Your task to perform on an android device: check the backup settings in the google photos Image 0: 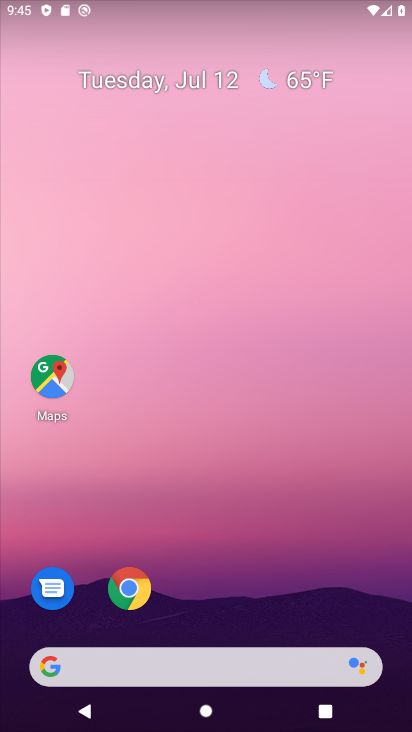
Step 0: drag from (36, 715) to (314, 4)
Your task to perform on an android device: check the backup settings in the google photos Image 1: 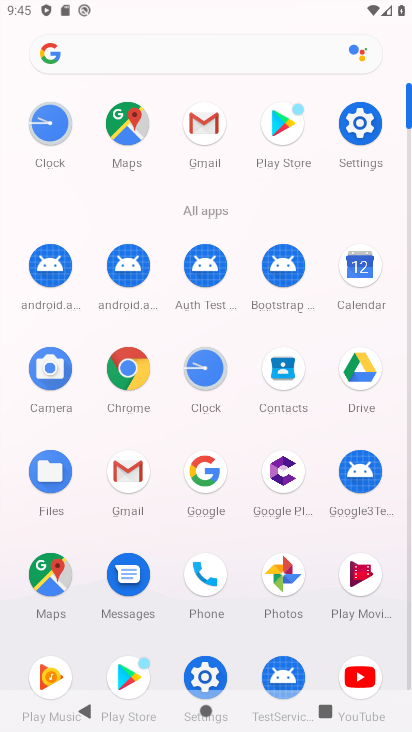
Step 1: click (285, 577)
Your task to perform on an android device: check the backup settings in the google photos Image 2: 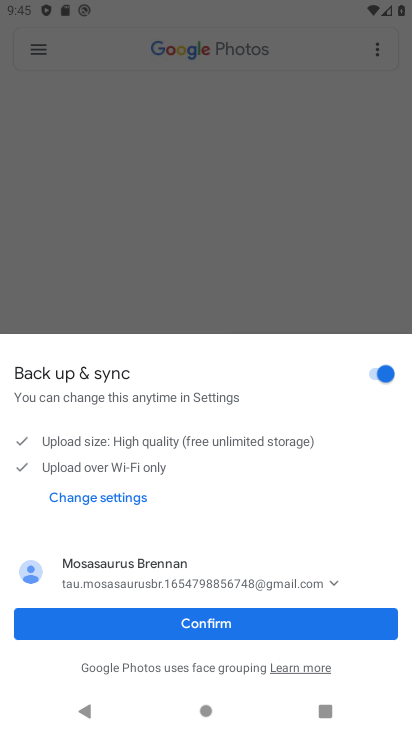
Step 2: click (137, 618)
Your task to perform on an android device: check the backup settings in the google photos Image 3: 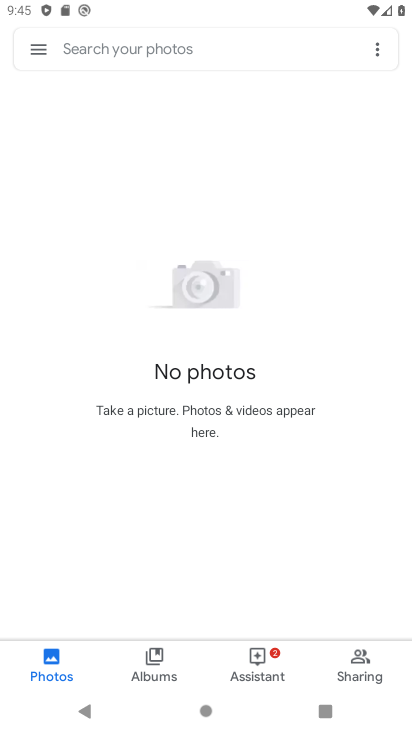
Step 3: click (30, 48)
Your task to perform on an android device: check the backup settings in the google photos Image 4: 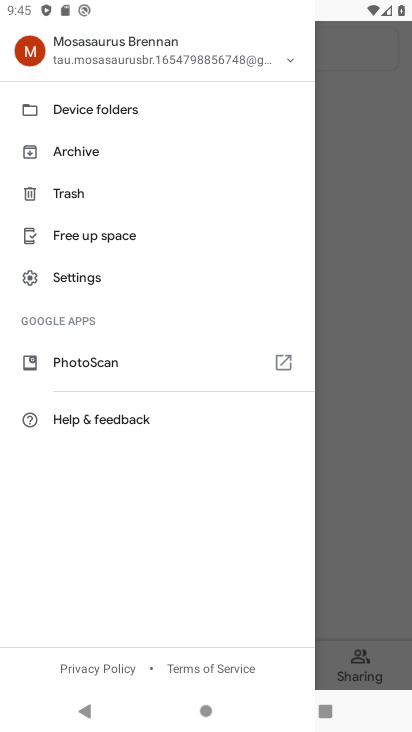
Step 4: click (95, 280)
Your task to perform on an android device: check the backup settings in the google photos Image 5: 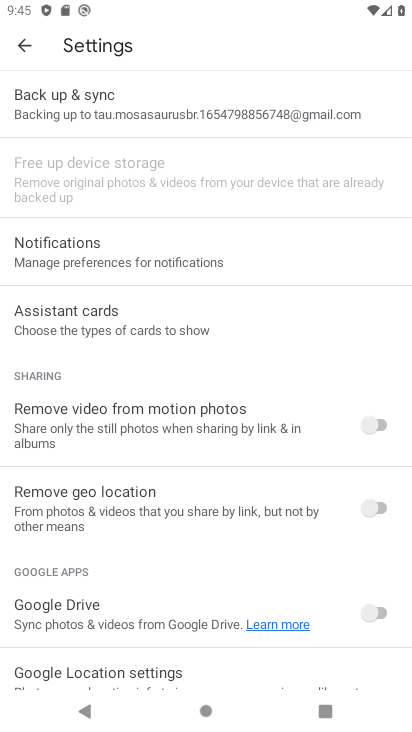
Step 5: click (91, 108)
Your task to perform on an android device: check the backup settings in the google photos Image 6: 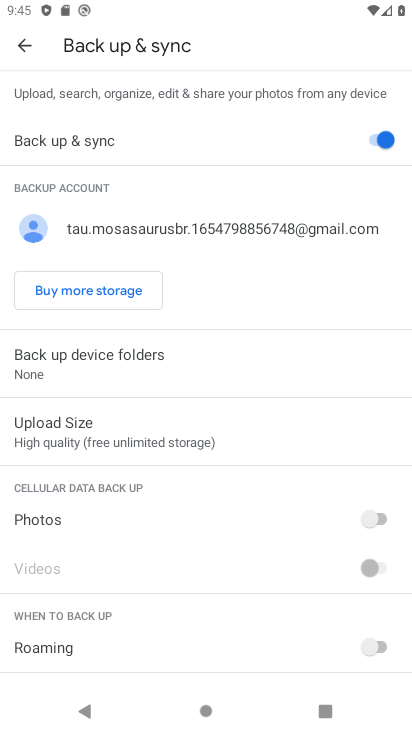
Step 6: task complete